Your task to perform on an android device: allow notifications from all sites in the chrome app Image 0: 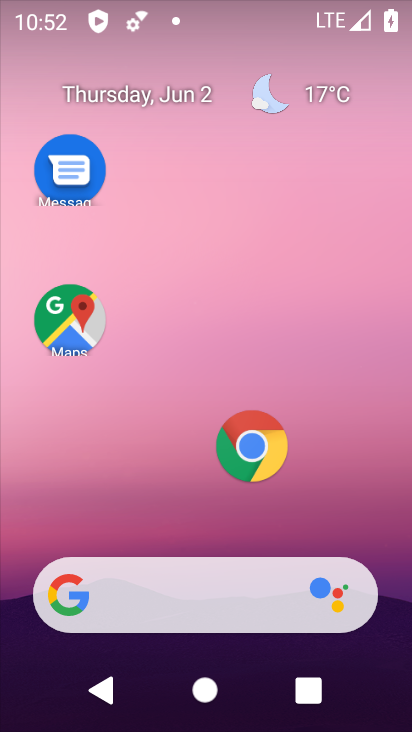
Step 0: press home button
Your task to perform on an android device: allow notifications from all sites in the chrome app Image 1: 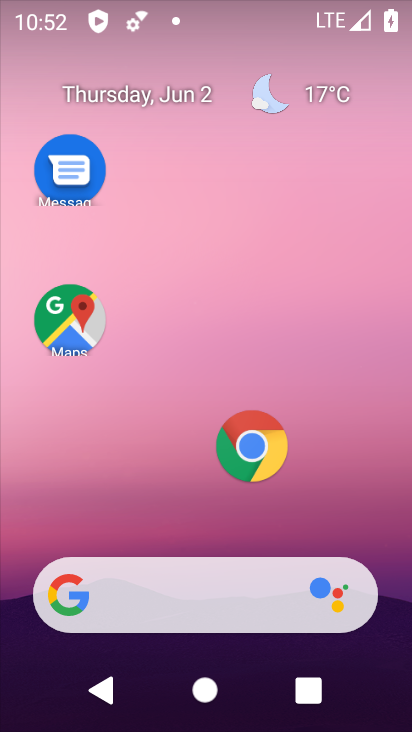
Step 1: click (241, 444)
Your task to perform on an android device: allow notifications from all sites in the chrome app Image 2: 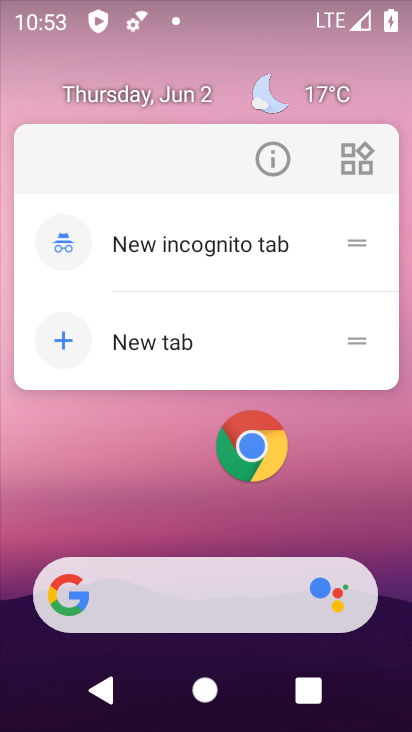
Step 2: click (248, 470)
Your task to perform on an android device: allow notifications from all sites in the chrome app Image 3: 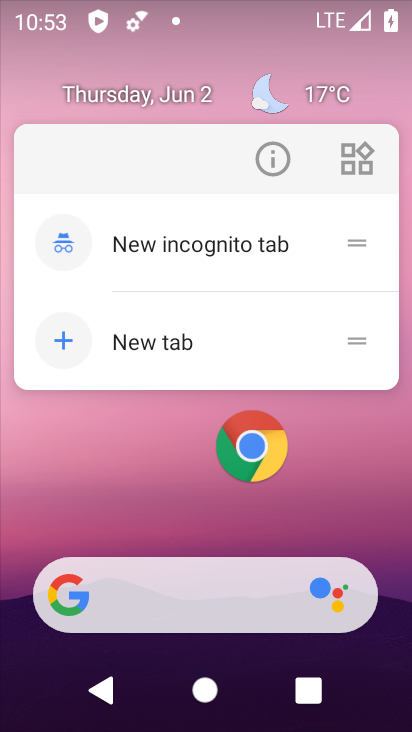
Step 3: click (247, 429)
Your task to perform on an android device: allow notifications from all sites in the chrome app Image 4: 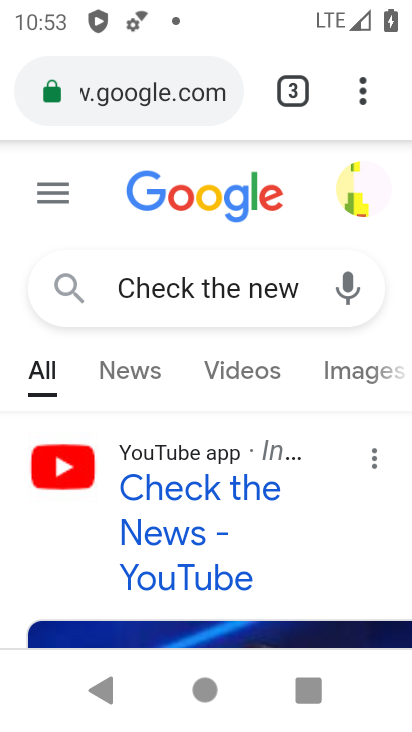
Step 4: drag from (379, 78) to (69, 452)
Your task to perform on an android device: allow notifications from all sites in the chrome app Image 5: 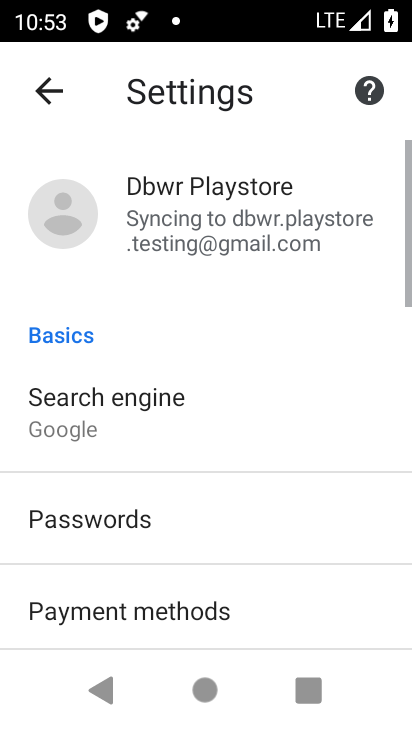
Step 5: drag from (191, 572) to (134, 207)
Your task to perform on an android device: allow notifications from all sites in the chrome app Image 6: 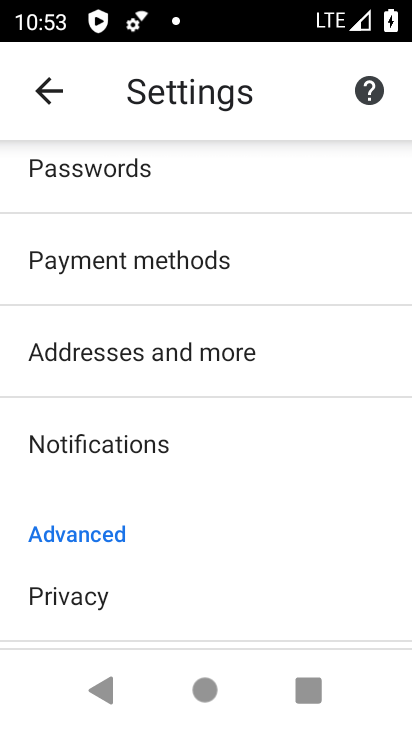
Step 6: drag from (153, 590) to (190, 288)
Your task to perform on an android device: allow notifications from all sites in the chrome app Image 7: 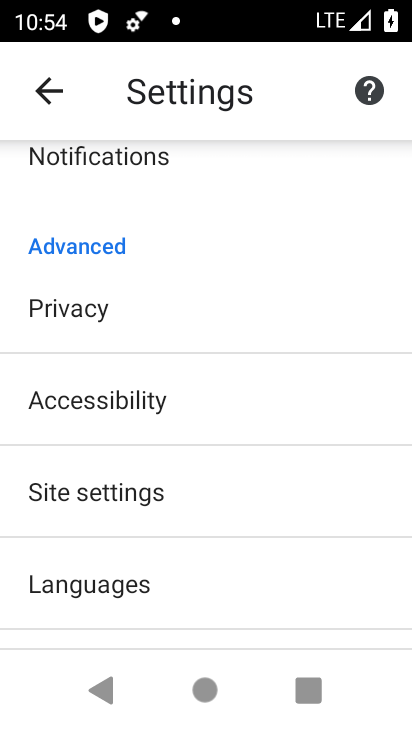
Step 7: click (185, 508)
Your task to perform on an android device: allow notifications from all sites in the chrome app Image 8: 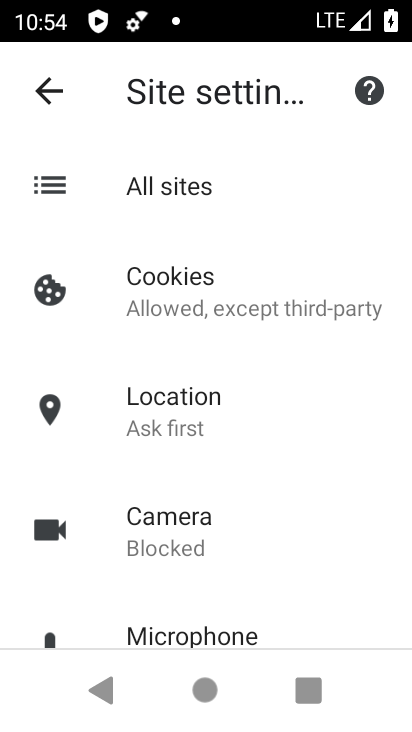
Step 8: drag from (189, 494) to (215, 165)
Your task to perform on an android device: allow notifications from all sites in the chrome app Image 9: 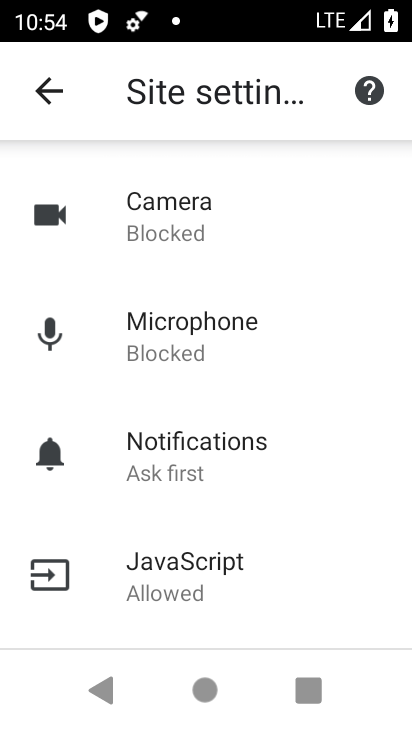
Step 9: click (206, 479)
Your task to perform on an android device: allow notifications from all sites in the chrome app Image 10: 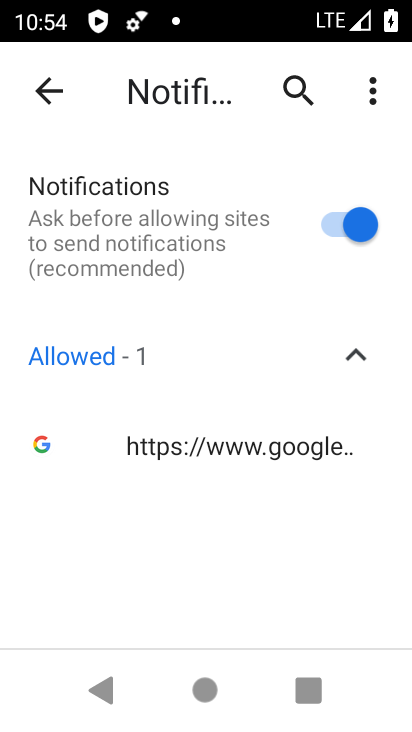
Step 10: click (250, 435)
Your task to perform on an android device: allow notifications from all sites in the chrome app Image 11: 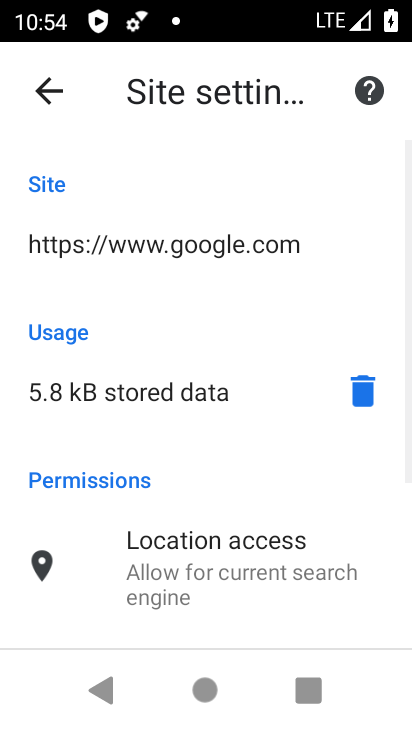
Step 11: drag from (282, 450) to (319, 186)
Your task to perform on an android device: allow notifications from all sites in the chrome app Image 12: 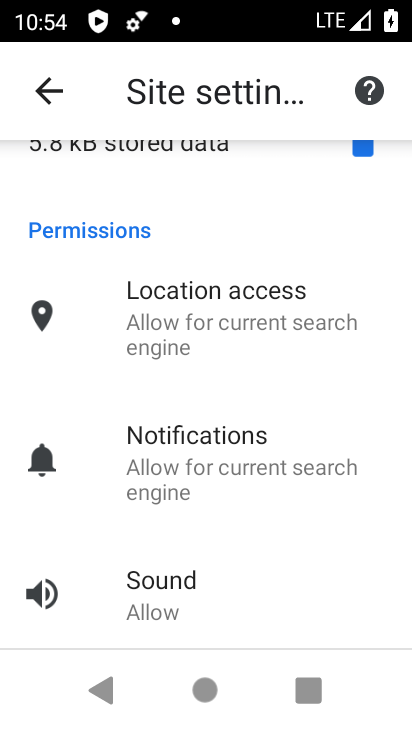
Step 12: click (246, 449)
Your task to perform on an android device: allow notifications from all sites in the chrome app Image 13: 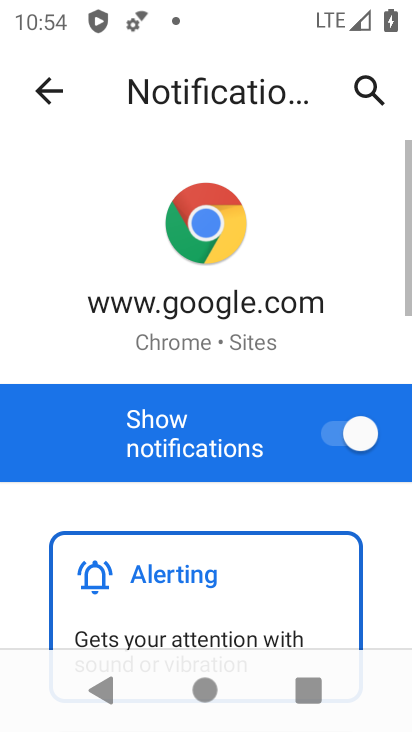
Step 13: task complete